Your task to perform on an android device: turn on javascript in the chrome app Image 0: 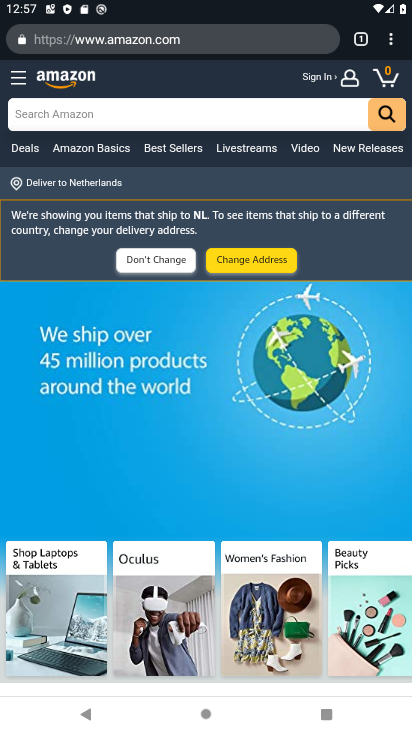
Step 0: click (383, 36)
Your task to perform on an android device: turn on javascript in the chrome app Image 1: 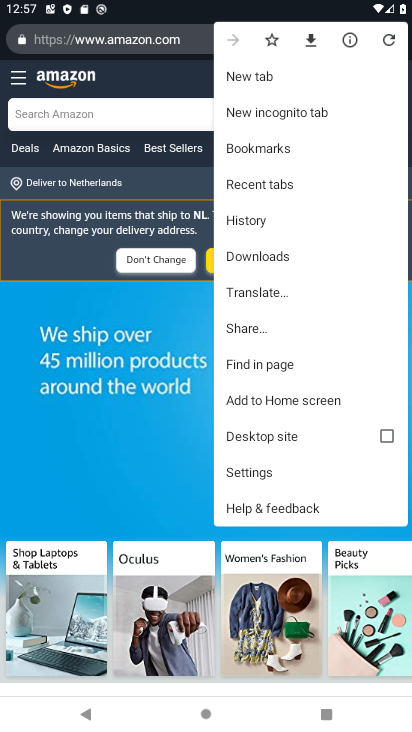
Step 1: click (237, 464)
Your task to perform on an android device: turn on javascript in the chrome app Image 2: 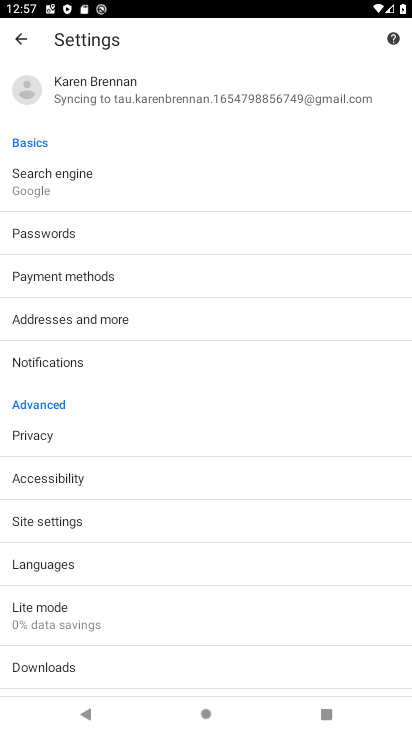
Step 2: drag from (125, 476) to (125, 344)
Your task to perform on an android device: turn on javascript in the chrome app Image 3: 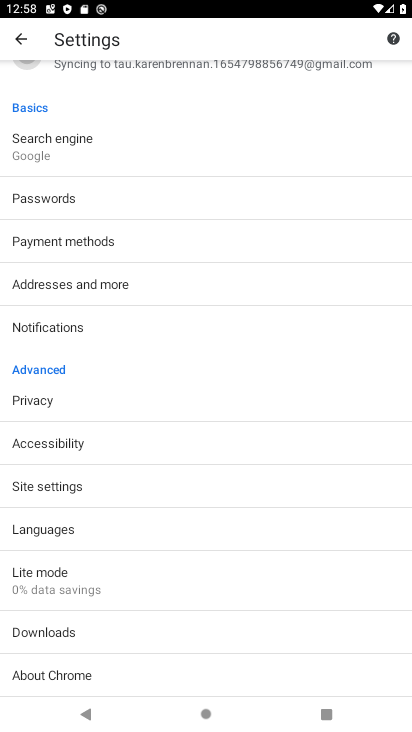
Step 3: click (146, 499)
Your task to perform on an android device: turn on javascript in the chrome app Image 4: 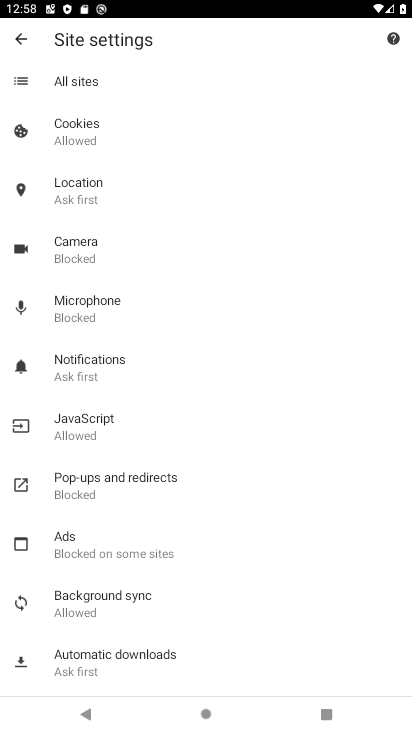
Step 4: click (87, 432)
Your task to perform on an android device: turn on javascript in the chrome app Image 5: 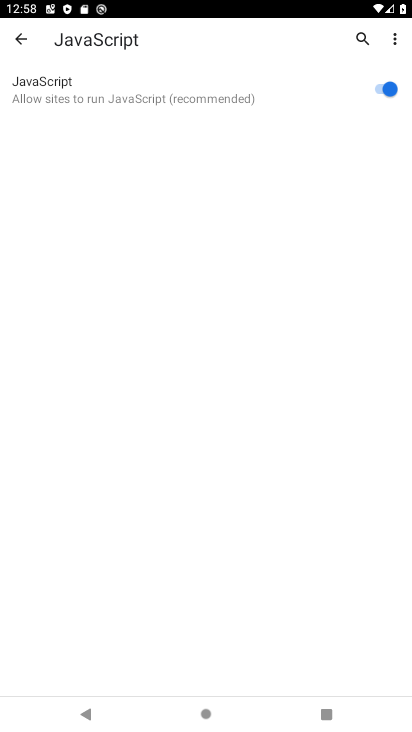
Step 5: task complete